Your task to perform on an android device: turn off notifications in google photos Image 0: 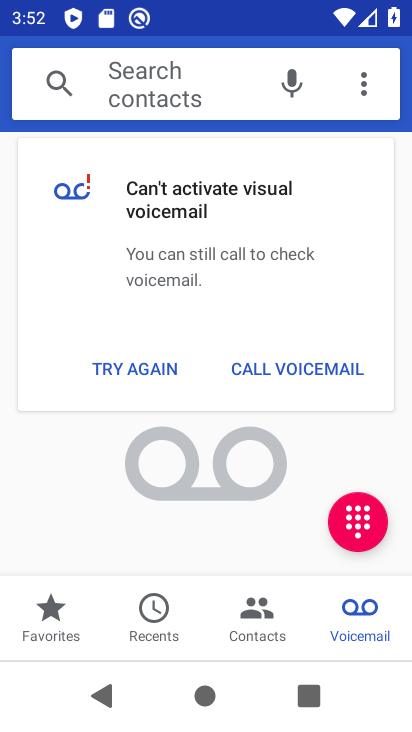
Step 0: press back button
Your task to perform on an android device: turn off notifications in google photos Image 1: 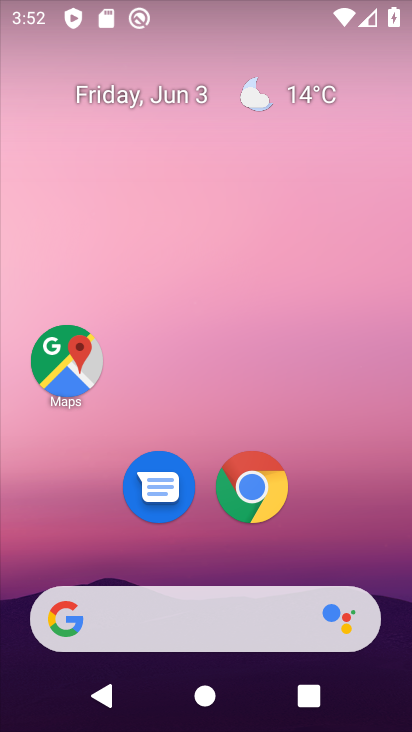
Step 1: drag from (165, 547) to (238, 54)
Your task to perform on an android device: turn off notifications in google photos Image 2: 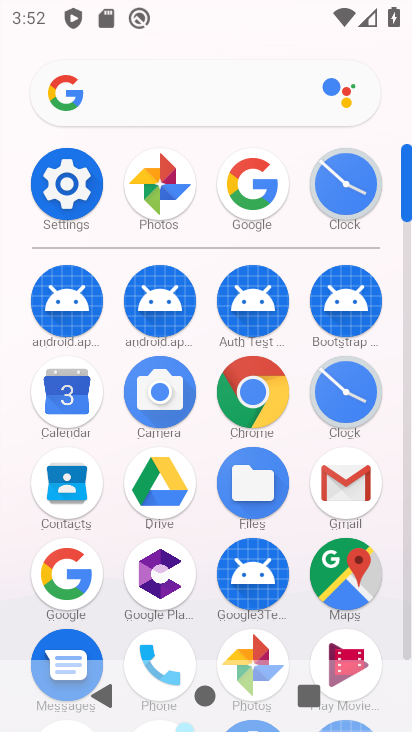
Step 2: click (253, 646)
Your task to perform on an android device: turn off notifications in google photos Image 3: 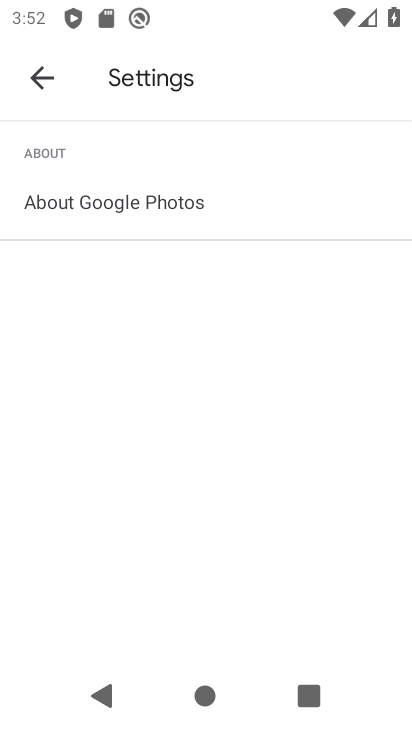
Step 3: click (59, 72)
Your task to perform on an android device: turn off notifications in google photos Image 4: 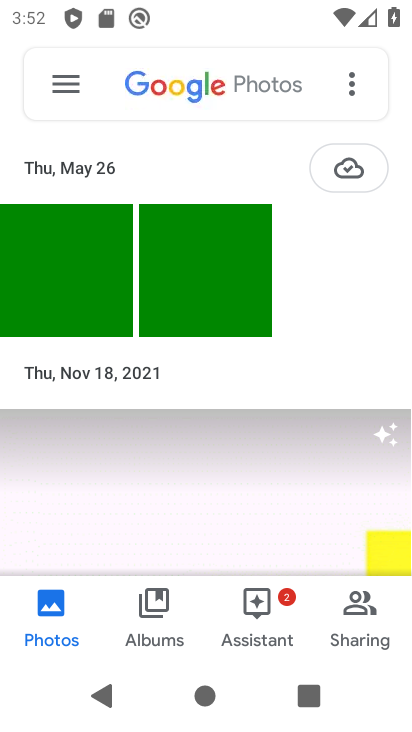
Step 4: click (62, 82)
Your task to perform on an android device: turn off notifications in google photos Image 5: 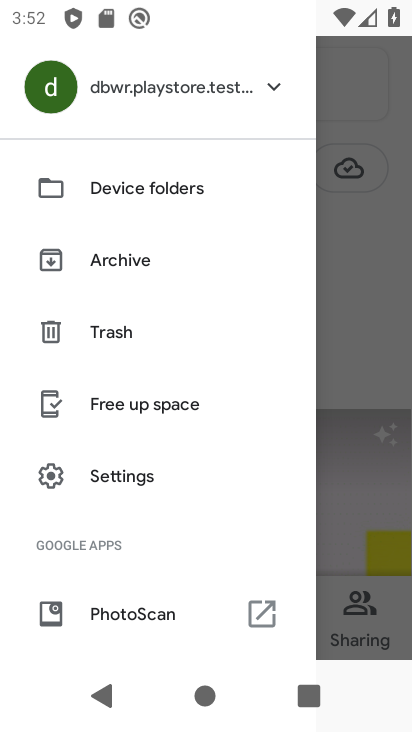
Step 5: click (157, 483)
Your task to perform on an android device: turn off notifications in google photos Image 6: 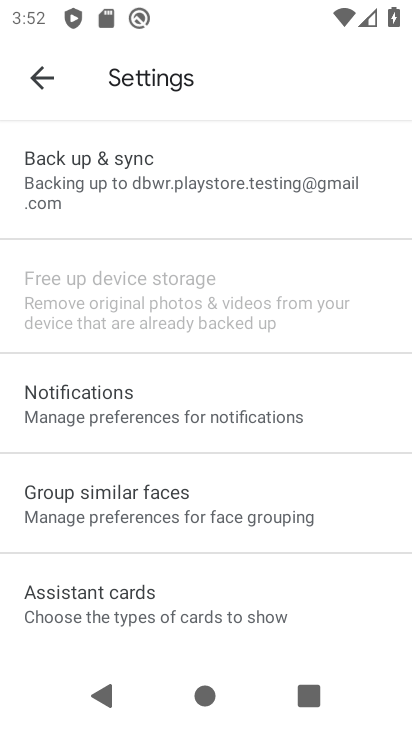
Step 6: click (140, 401)
Your task to perform on an android device: turn off notifications in google photos Image 7: 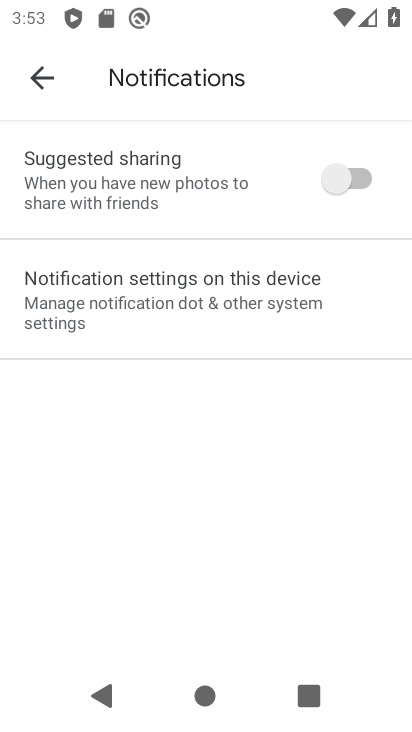
Step 7: click (111, 290)
Your task to perform on an android device: turn off notifications in google photos Image 8: 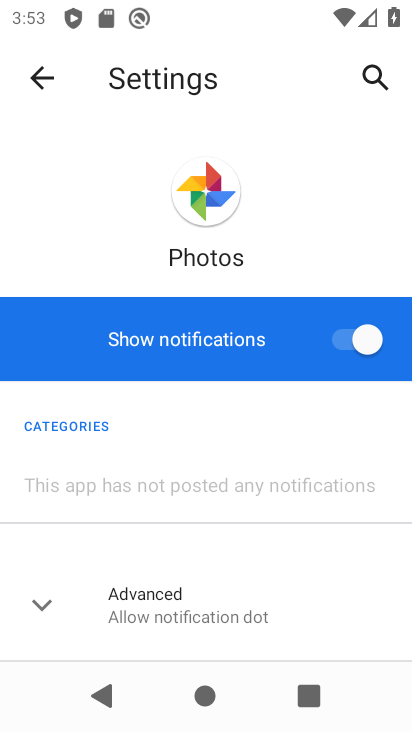
Step 8: click (358, 345)
Your task to perform on an android device: turn off notifications in google photos Image 9: 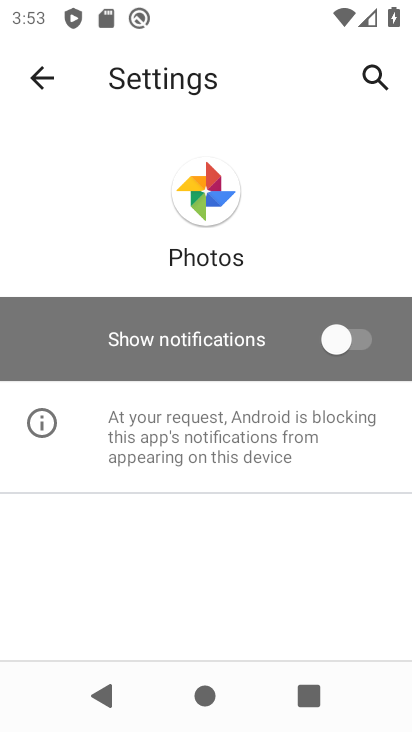
Step 9: task complete